Your task to perform on an android device: add a contact Image 0: 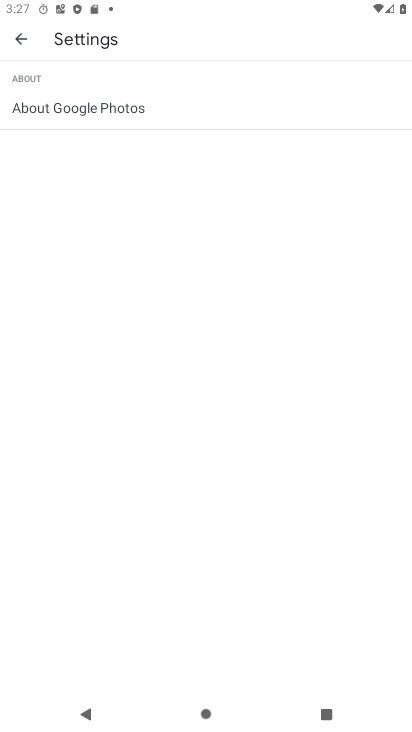
Step 0: press home button
Your task to perform on an android device: add a contact Image 1: 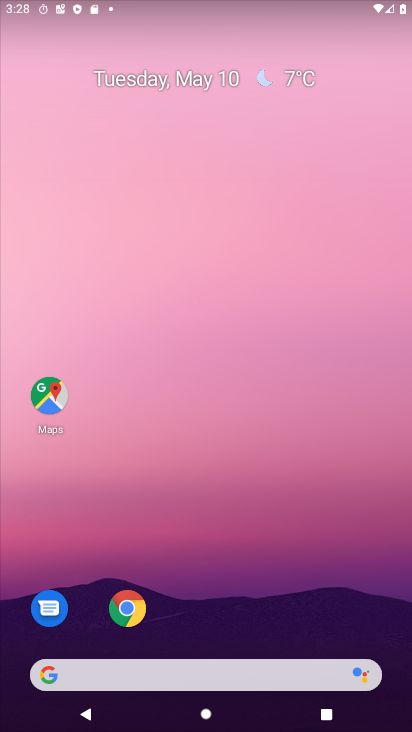
Step 1: drag from (262, 624) to (279, 74)
Your task to perform on an android device: add a contact Image 2: 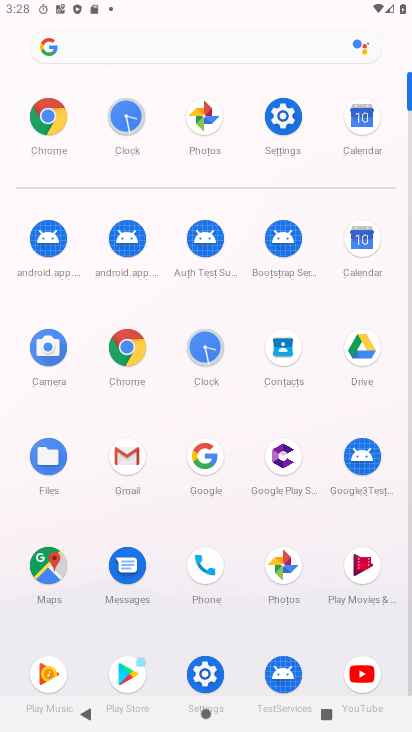
Step 2: click (281, 343)
Your task to perform on an android device: add a contact Image 3: 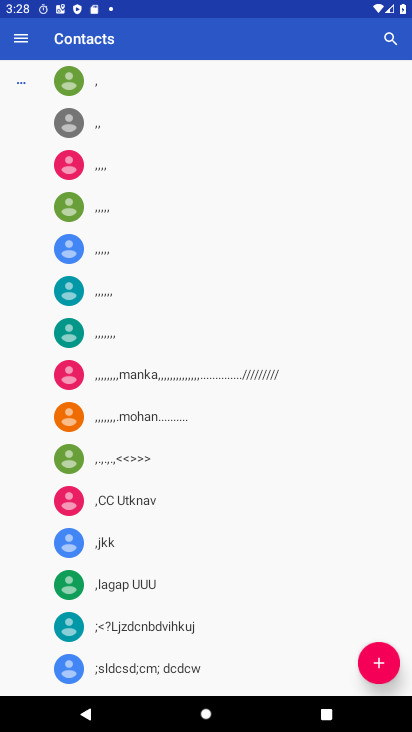
Step 3: click (382, 665)
Your task to perform on an android device: add a contact Image 4: 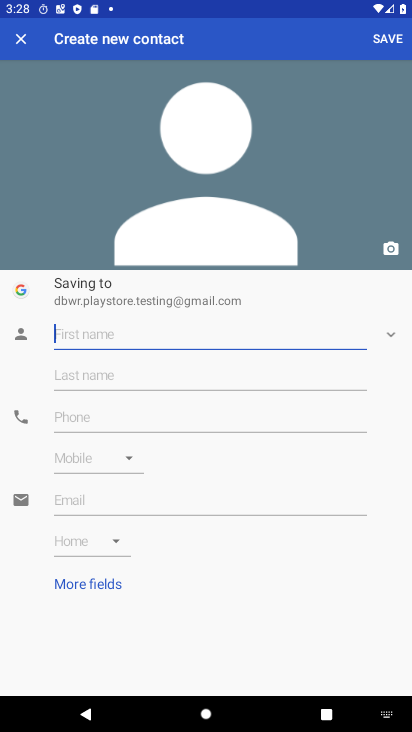
Step 4: click (82, 340)
Your task to perform on an android device: add a contact Image 5: 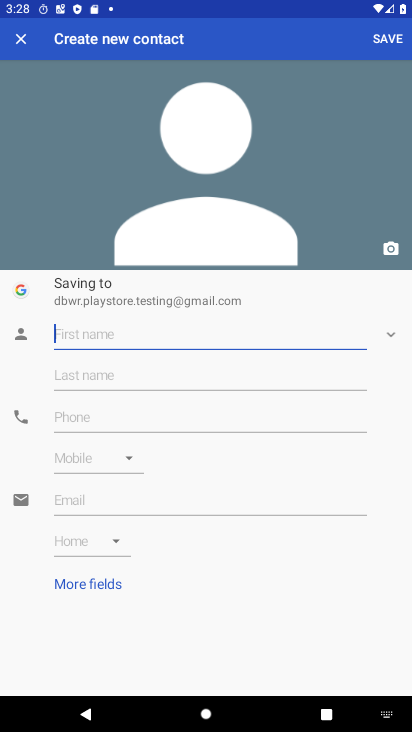
Step 5: type "rosy"
Your task to perform on an android device: add a contact Image 6: 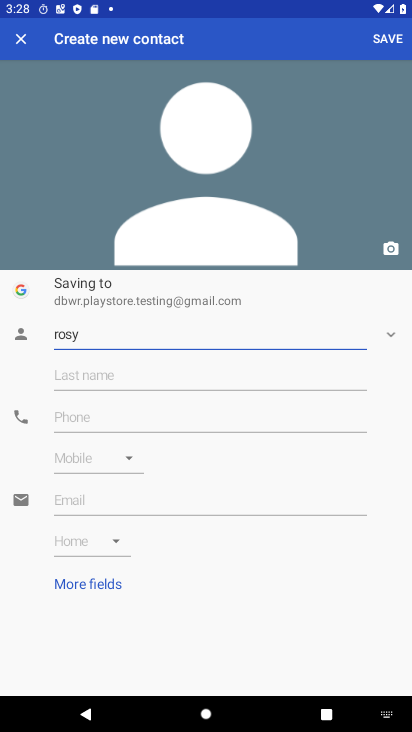
Step 6: click (94, 416)
Your task to perform on an android device: add a contact Image 7: 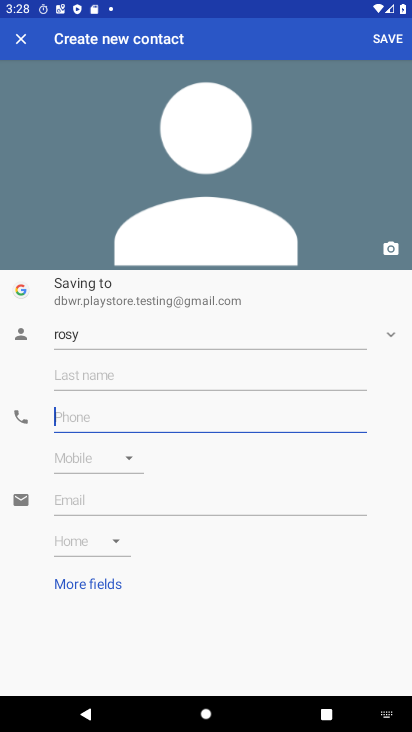
Step 7: type "987654433"
Your task to perform on an android device: add a contact Image 8: 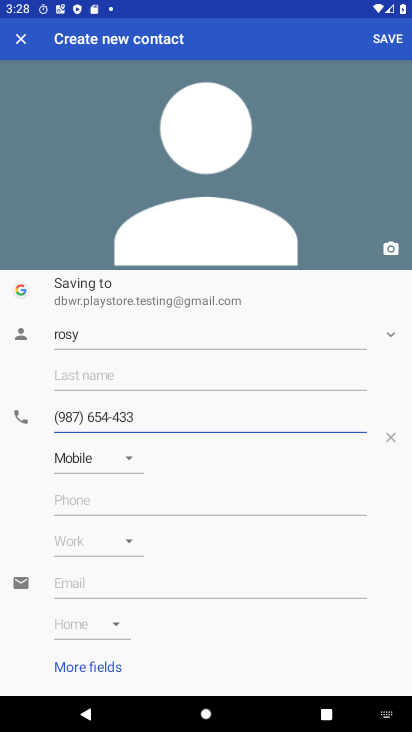
Step 8: click (392, 42)
Your task to perform on an android device: add a contact Image 9: 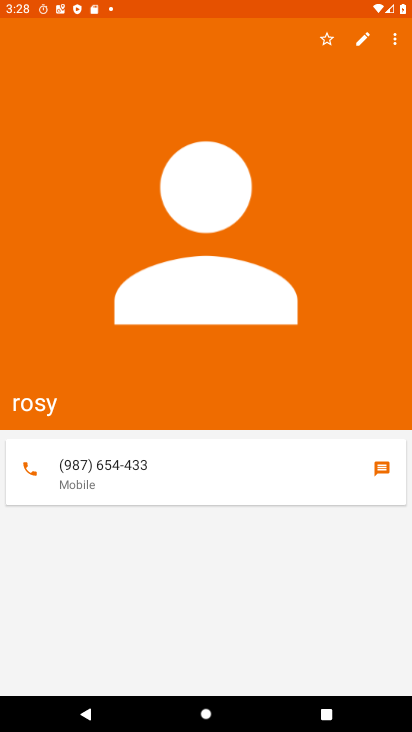
Step 9: task complete